Your task to perform on an android device: all mails in gmail Image 0: 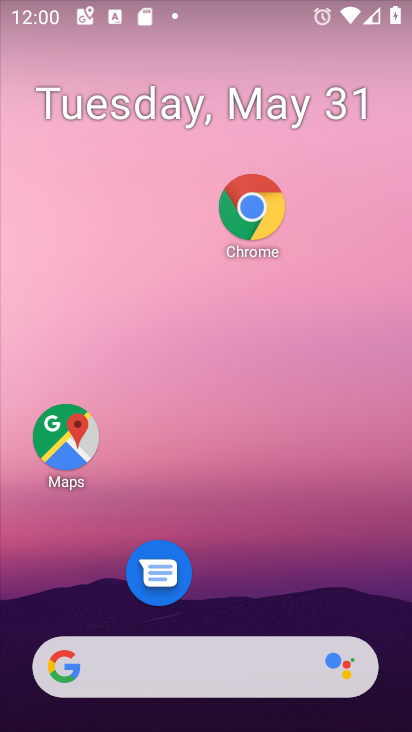
Step 0: drag from (308, 609) to (293, 1)
Your task to perform on an android device: all mails in gmail Image 1: 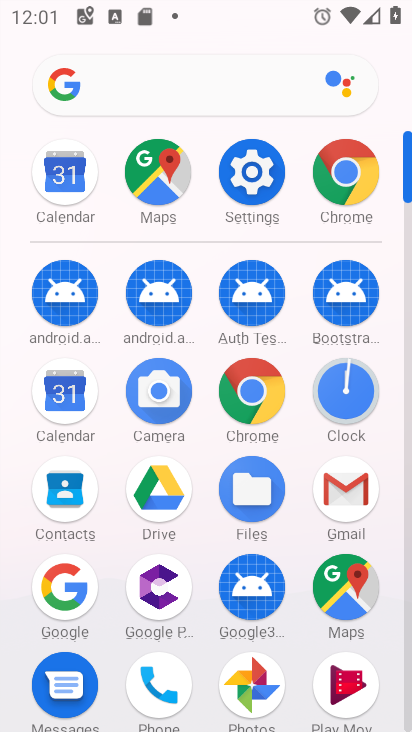
Step 1: click (348, 513)
Your task to perform on an android device: all mails in gmail Image 2: 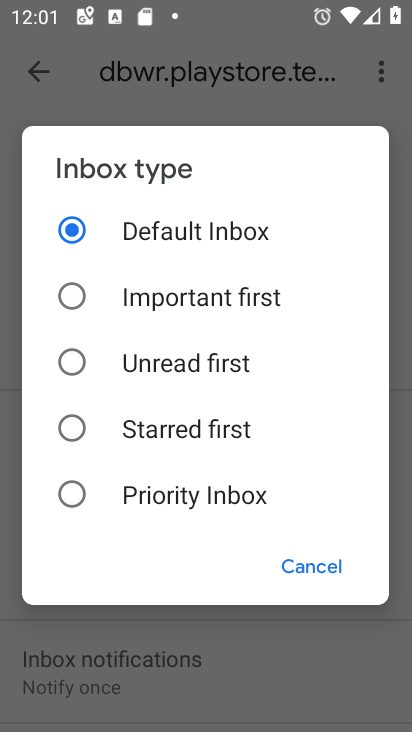
Step 2: click (37, 63)
Your task to perform on an android device: all mails in gmail Image 3: 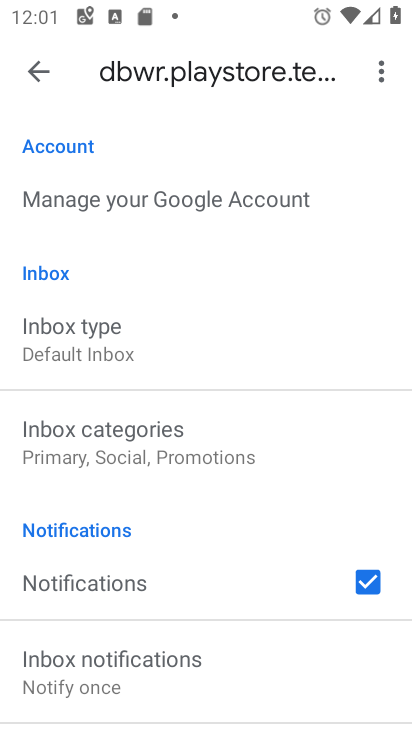
Step 3: click (10, 72)
Your task to perform on an android device: all mails in gmail Image 4: 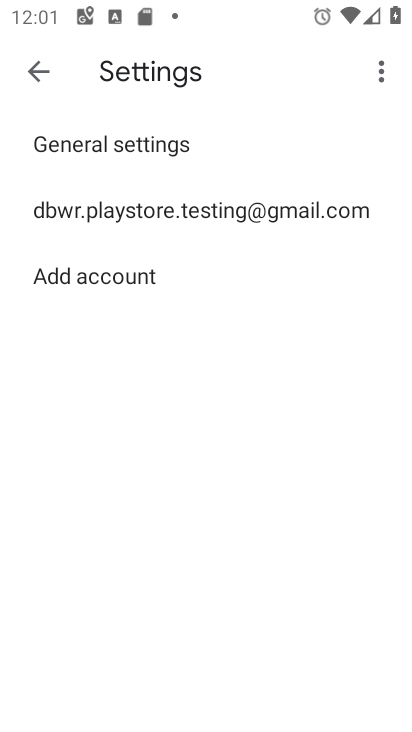
Step 4: click (21, 76)
Your task to perform on an android device: all mails in gmail Image 5: 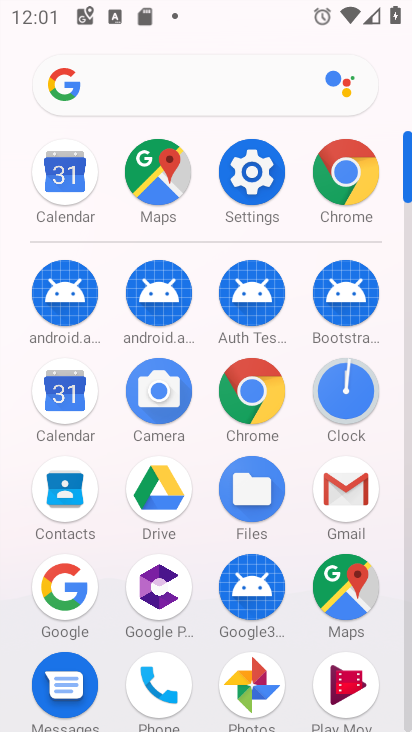
Step 5: click (346, 497)
Your task to perform on an android device: all mails in gmail Image 6: 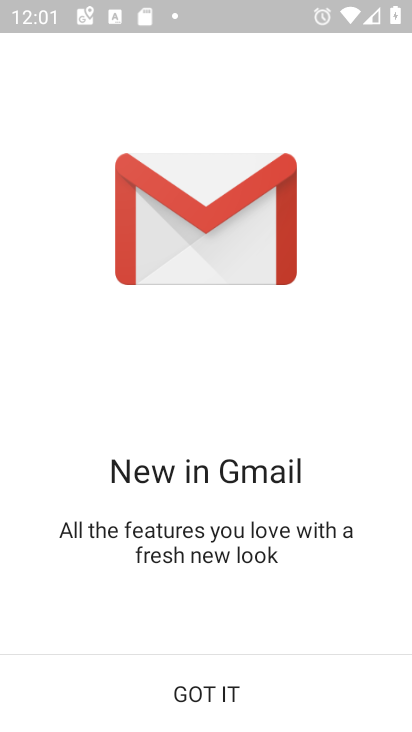
Step 6: click (215, 683)
Your task to perform on an android device: all mails in gmail Image 7: 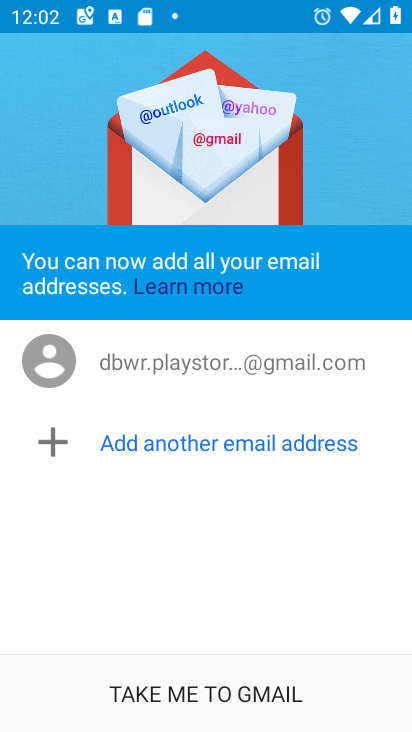
Step 7: click (218, 696)
Your task to perform on an android device: all mails in gmail Image 8: 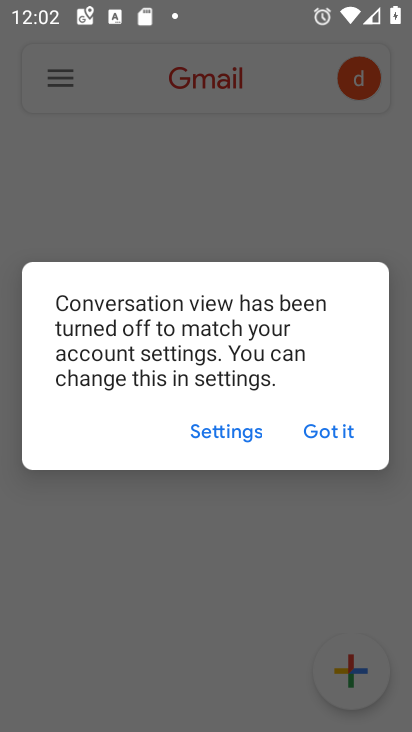
Step 8: click (348, 422)
Your task to perform on an android device: all mails in gmail Image 9: 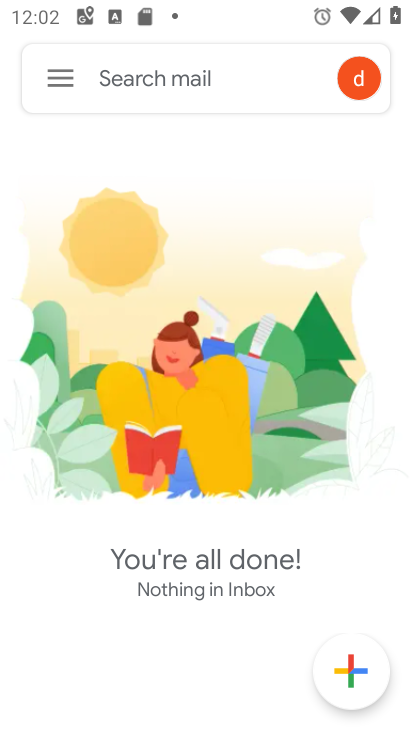
Step 9: click (74, 86)
Your task to perform on an android device: all mails in gmail Image 10: 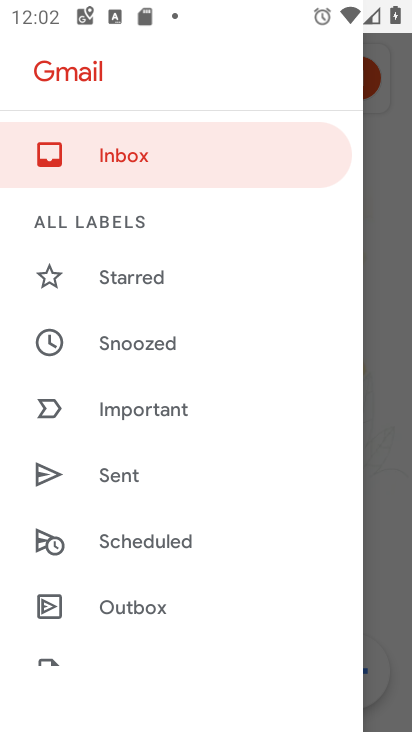
Step 10: drag from (142, 546) to (207, 108)
Your task to perform on an android device: all mails in gmail Image 11: 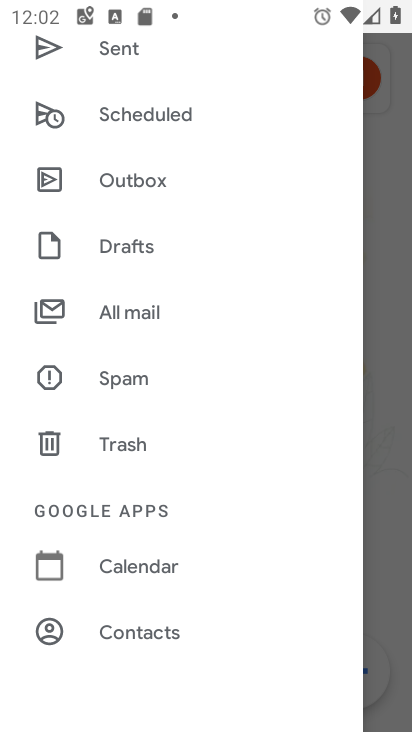
Step 11: click (158, 315)
Your task to perform on an android device: all mails in gmail Image 12: 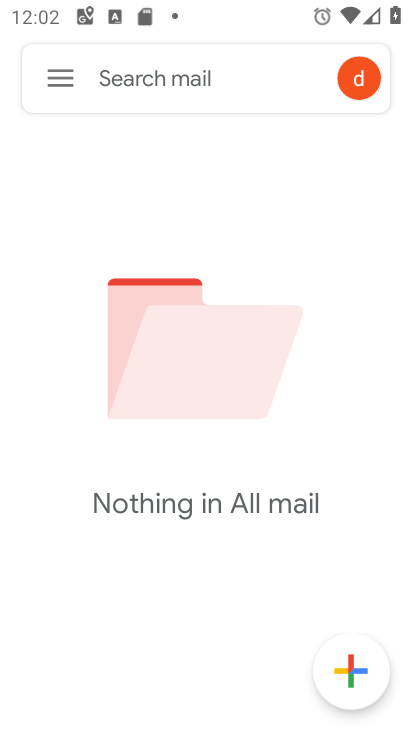
Step 12: task complete